Your task to perform on an android device: change your default location settings in chrome Image 0: 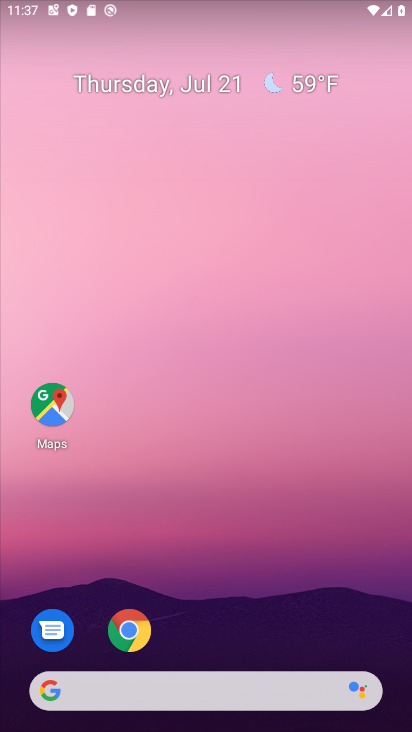
Step 0: drag from (200, 669) to (204, 253)
Your task to perform on an android device: change your default location settings in chrome Image 1: 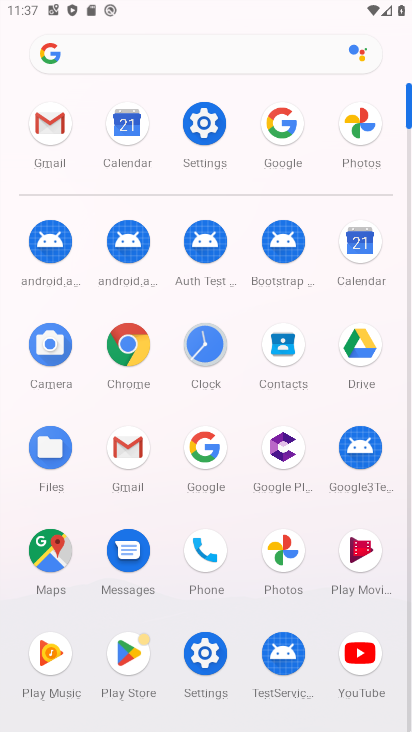
Step 1: click (138, 356)
Your task to perform on an android device: change your default location settings in chrome Image 2: 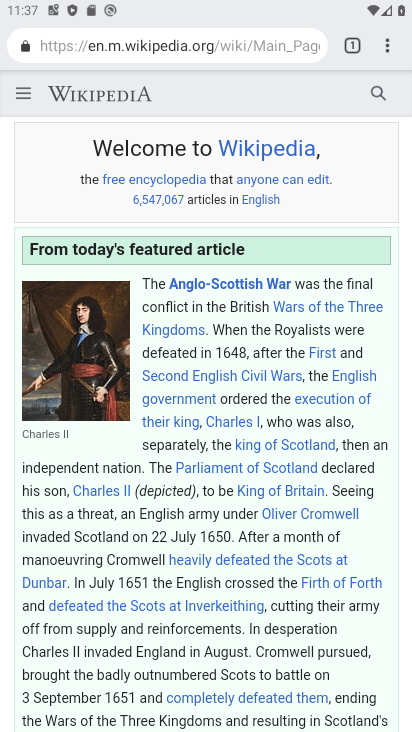
Step 2: click (138, 344)
Your task to perform on an android device: change your default location settings in chrome Image 3: 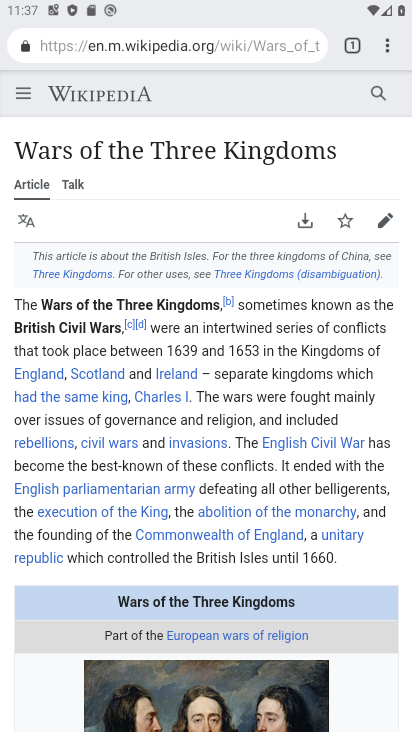
Step 3: click (385, 44)
Your task to perform on an android device: change your default location settings in chrome Image 4: 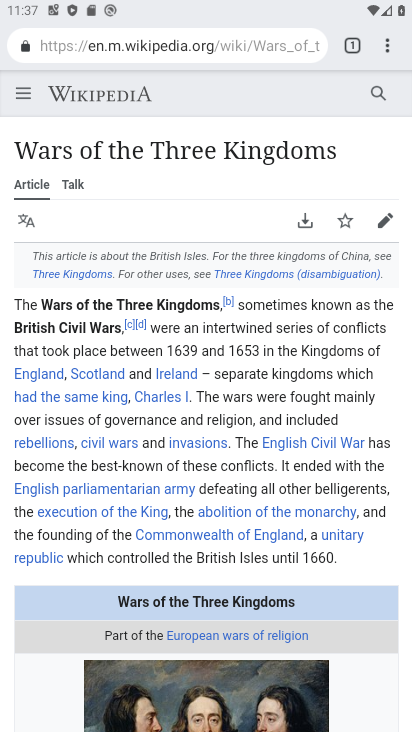
Step 4: click (385, 44)
Your task to perform on an android device: change your default location settings in chrome Image 5: 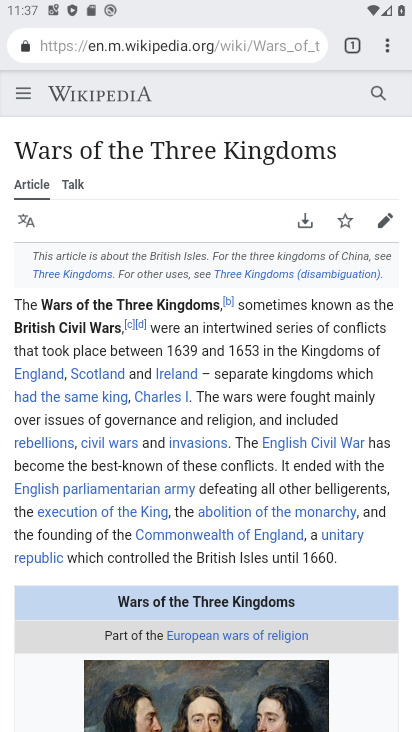
Step 5: click (383, 44)
Your task to perform on an android device: change your default location settings in chrome Image 6: 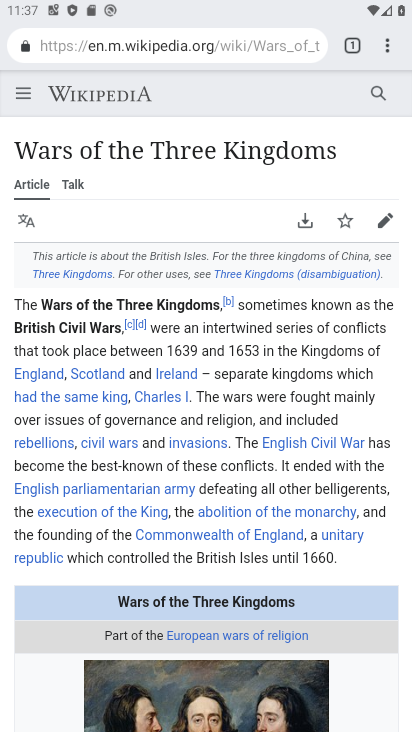
Step 6: click (378, 45)
Your task to perform on an android device: change your default location settings in chrome Image 7: 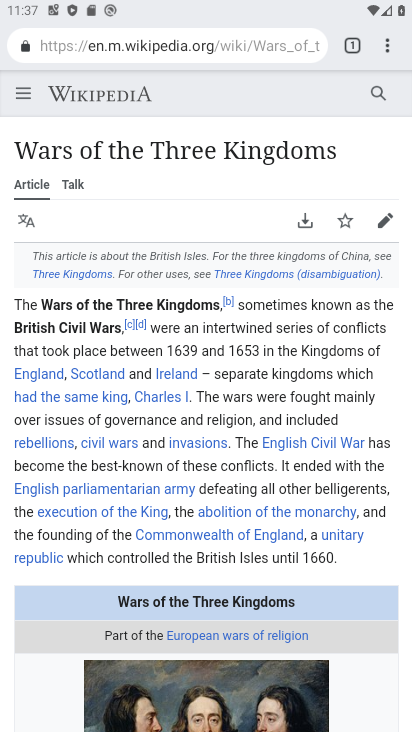
Step 7: click (380, 49)
Your task to perform on an android device: change your default location settings in chrome Image 8: 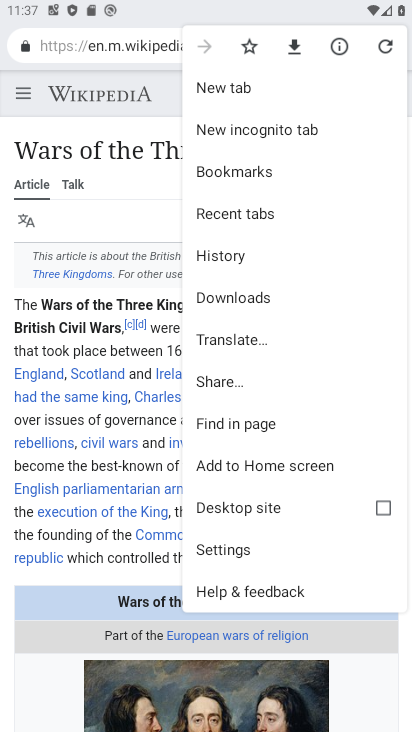
Step 8: click (236, 545)
Your task to perform on an android device: change your default location settings in chrome Image 9: 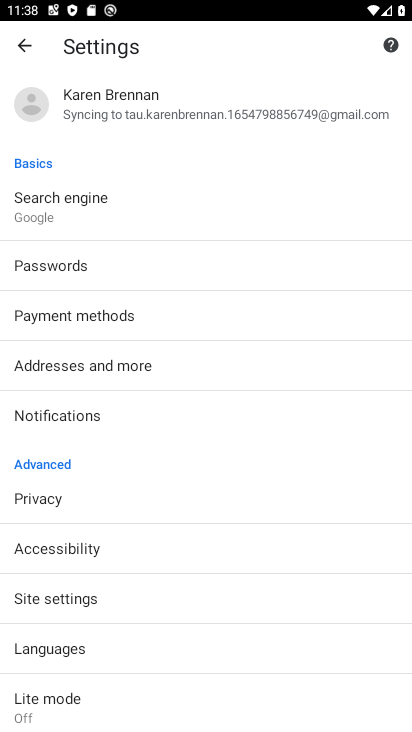
Step 9: drag from (54, 714) to (48, 402)
Your task to perform on an android device: change your default location settings in chrome Image 10: 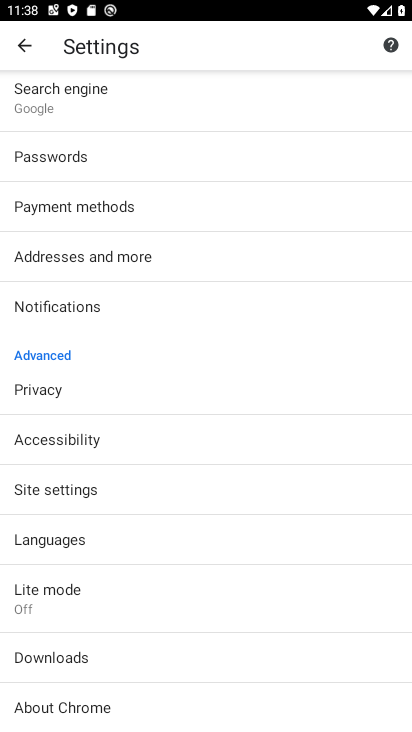
Step 10: click (60, 491)
Your task to perform on an android device: change your default location settings in chrome Image 11: 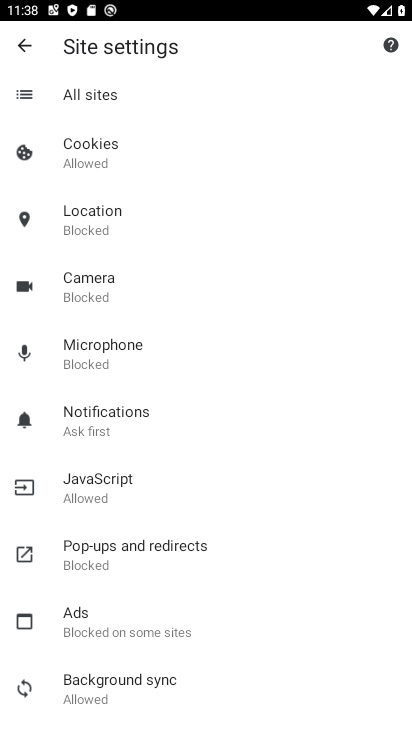
Step 11: click (88, 210)
Your task to perform on an android device: change your default location settings in chrome Image 12: 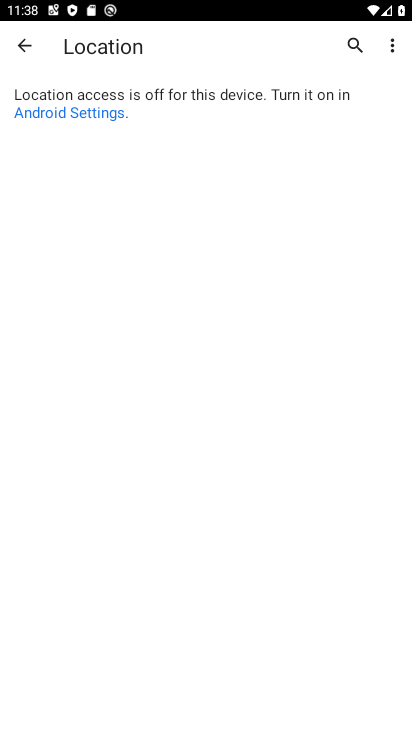
Step 12: task complete